Your task to perform on an android device: Search for pizza restaurants on Maps Image 0: 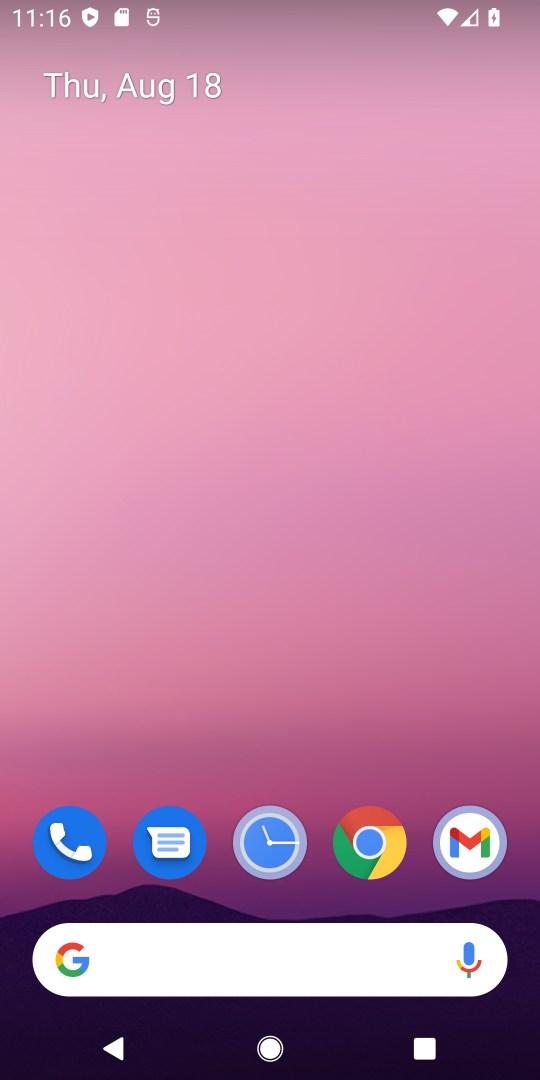
Step 0: drag from (155, 885) to (172, 427)
Your task to perform on an android device: Search for pizza restaurants on Maps Image 1: 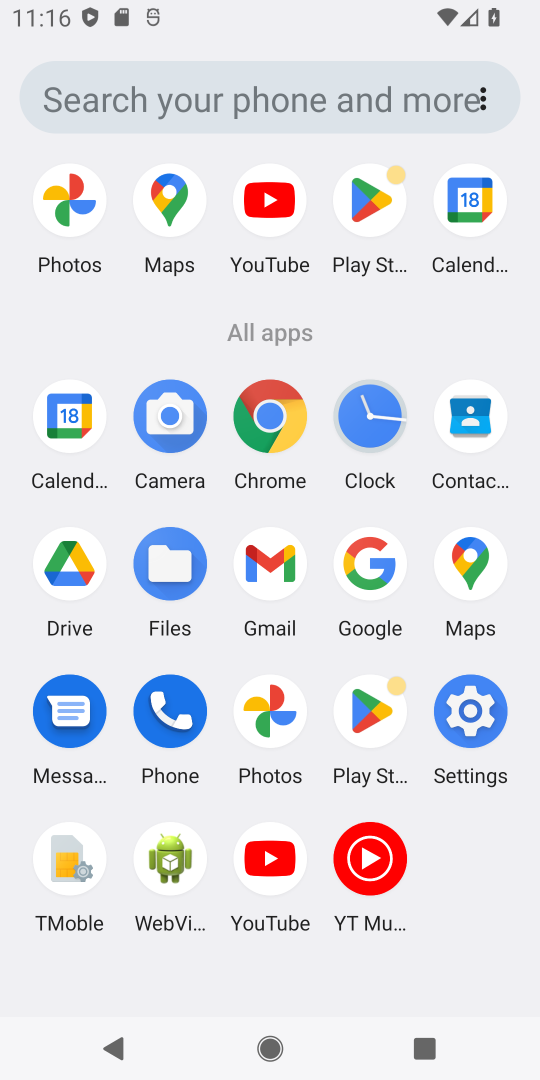
Step 1: click (168, 207)
Your task to perform on an android device: Search for pizza restaurants on Maps Image 2: 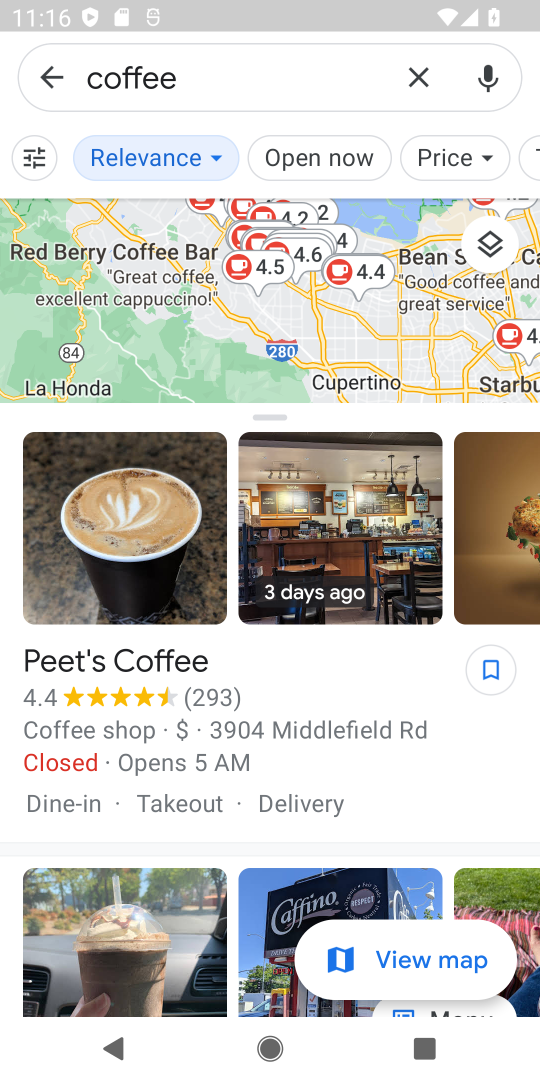
Step 2: click (422, 78)
Your task to perform on an android device: Search for pizza restaurants on Maps Image 3: 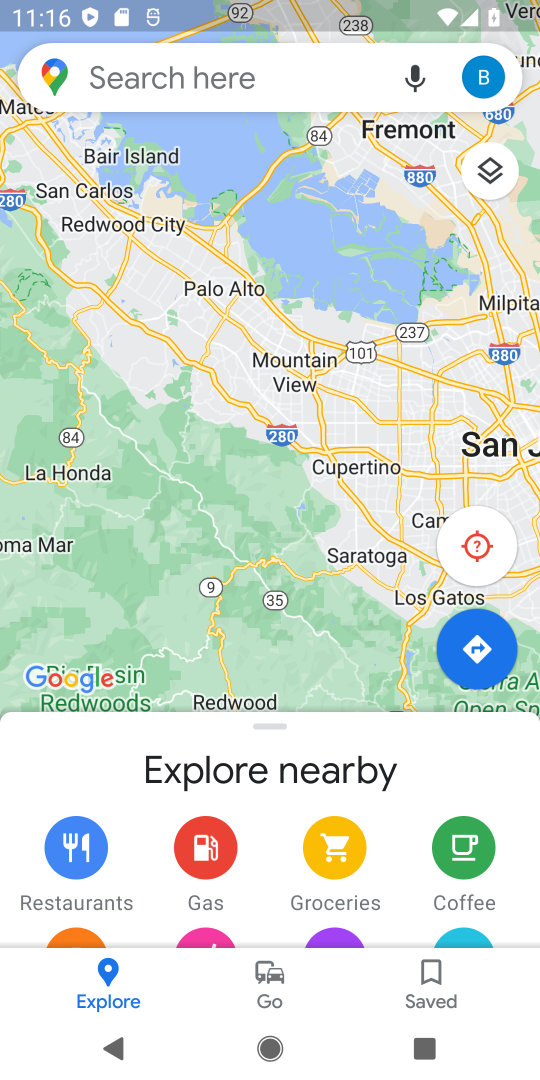
Step 3: click (322, 76)
Your task to perform on an android device: Search for pizza restaurants on Maps Image 4: 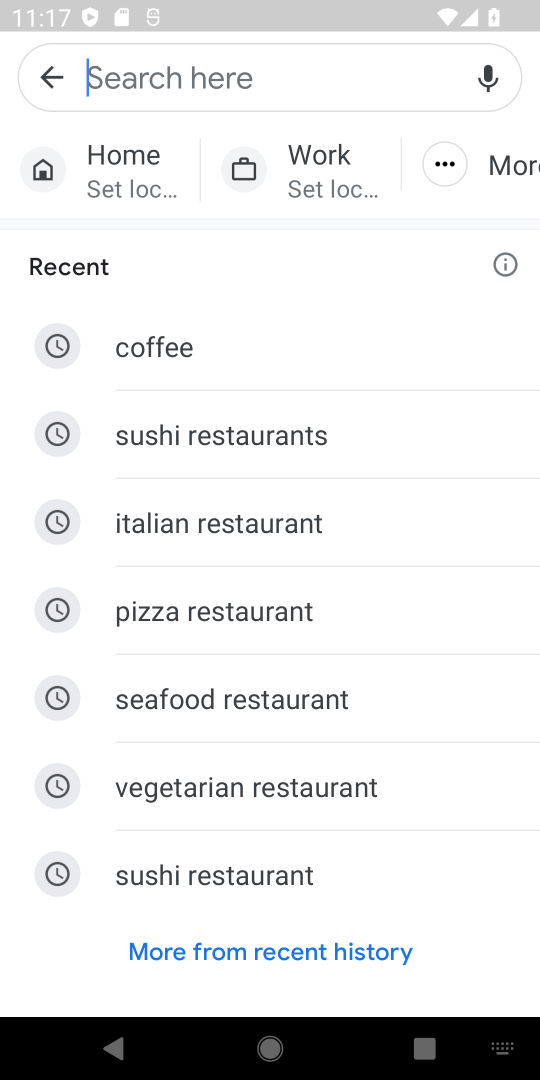
Step 4: click (333, 648)
Your task to perform on an android device: Search for pizza restaurants on Maps Image 5: 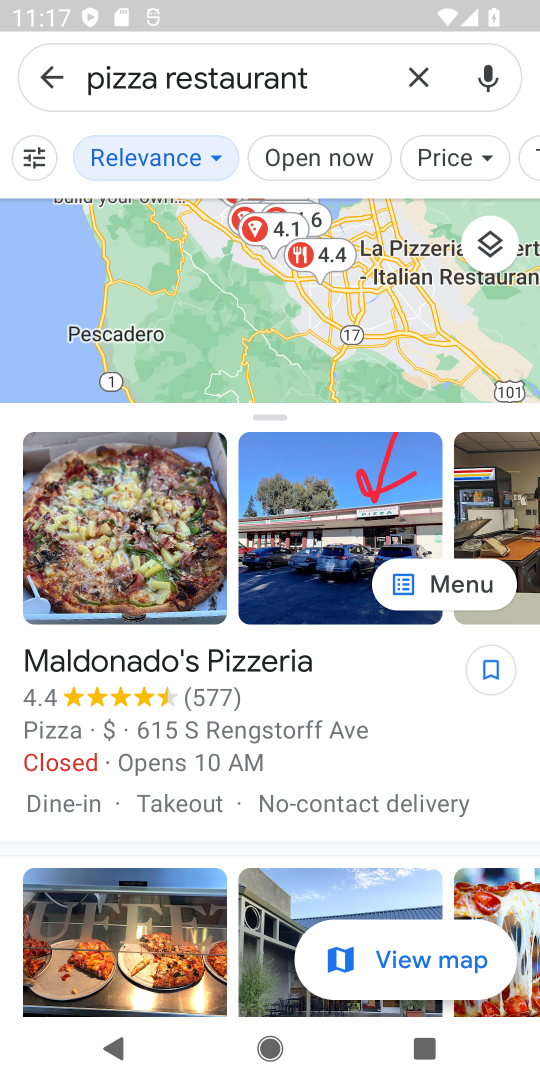
Step 5: task complete